Your task to perform on an android device: Go to Google Image 0: 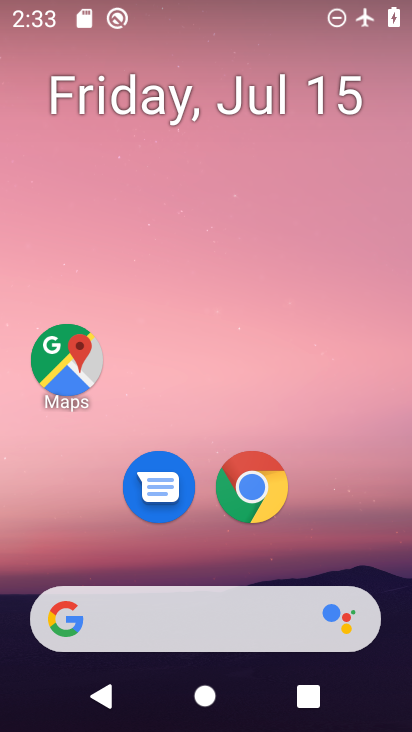
Step 0: drag from (192, 584) to (193, 71)
Your task to perform on an android device: Go to Google Image 1: 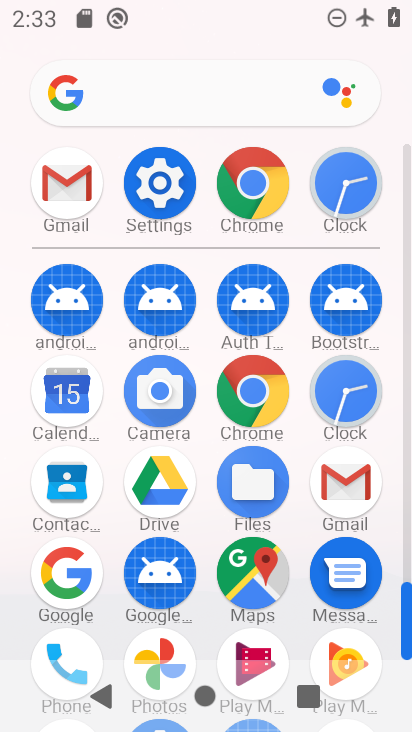
Step 1: drag from (213, 520) to (266, 173)
Your task to perform on an android device: Go to Google Image 2: 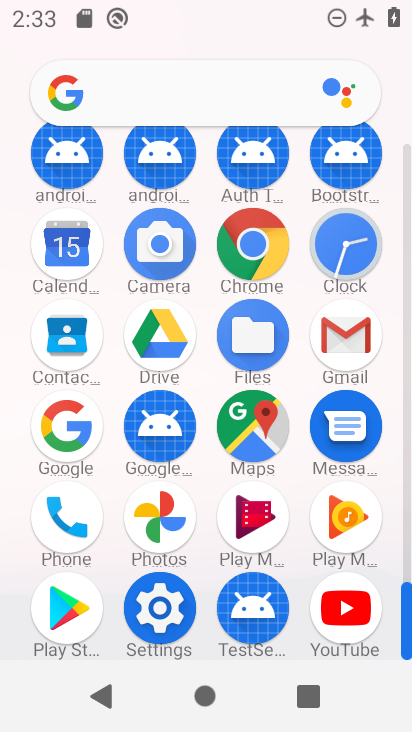
Step 2: click (63, 430)
Your task to perform on an android device: Go to Google Image 3: 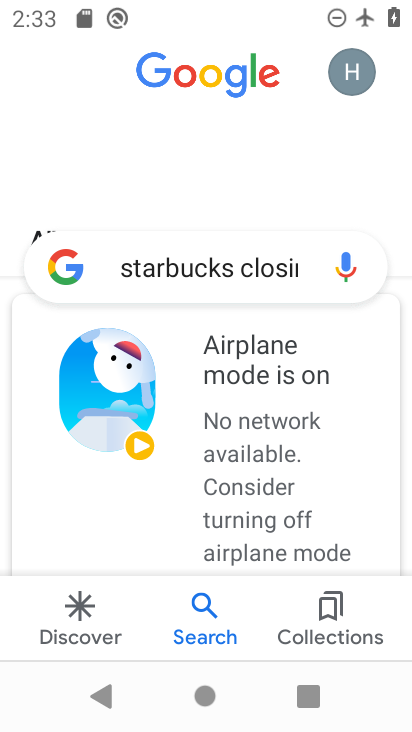
Step 3: task complete